Your task to perform on an android device: turn off picture-in-picture Image 0: 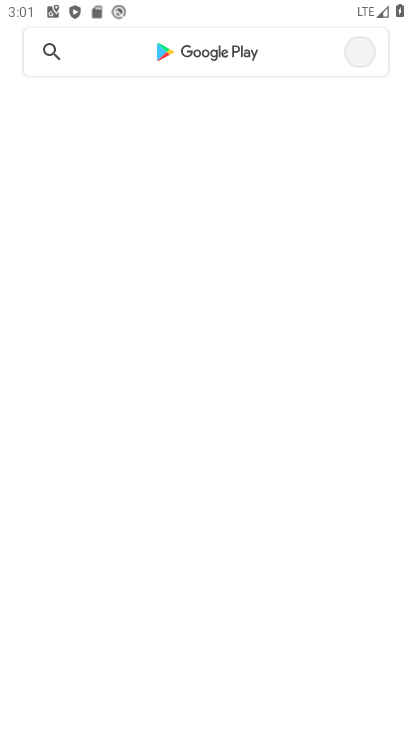
Step 0: press home button
Your task to perform on an android device: turn off picture-in-picture Image 1: 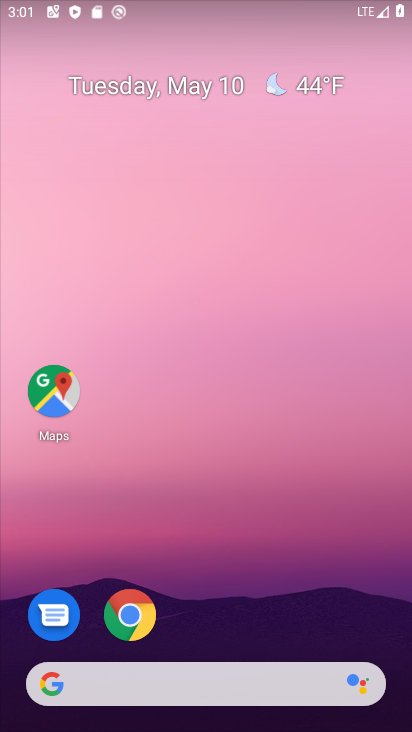
Step 1: click (137, 611)
Your task to perform on an android device: turn off picture-in-picture Image 2: 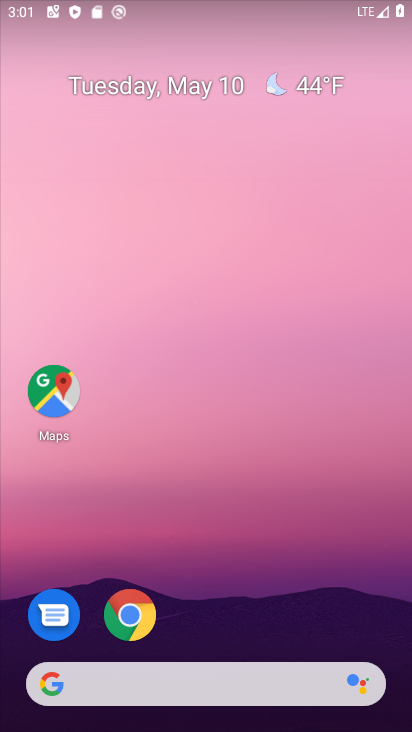
Step 2: click (140, 607)
Your task to perform on an android device: turn off picture-in-picture Image 3: 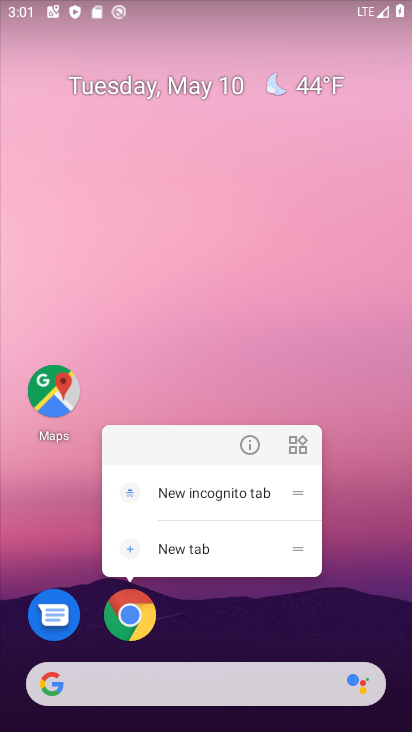
Step 3: click (259, 440)
Your task to perform on an android device: turn off picture-in-picture Image 4: 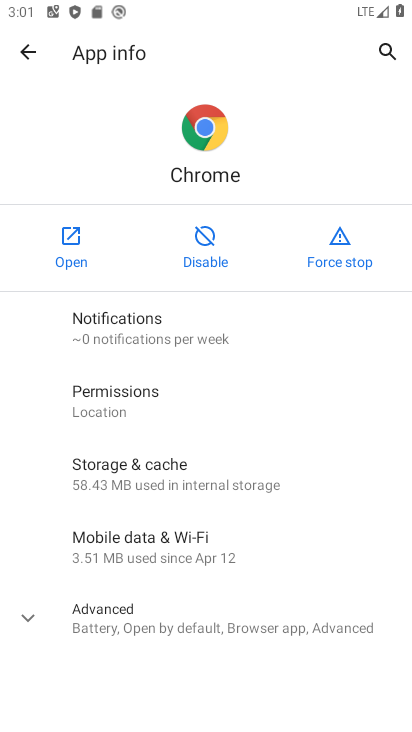
Step 4: drag from (245, 663) to (224, 497)
Your task to perform on an android device: turn off picture-in-picture Image 5: 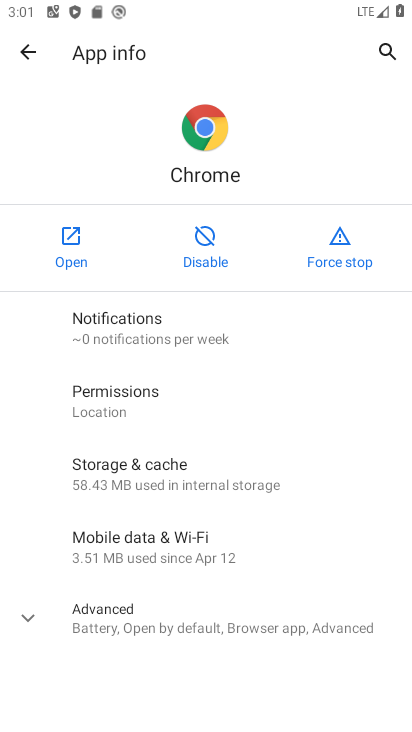
Step 5: click (203, 628)
Your task to perform on an android device: turn off picture-in-picture Image 6: 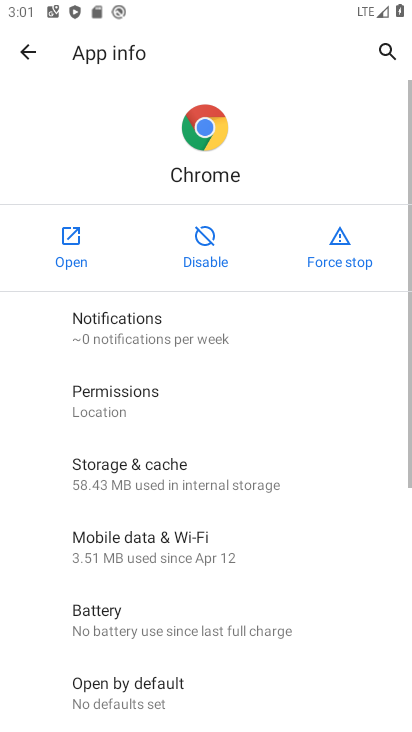
Step 6: drag from (203, 628) to (177, 120)
Your task to perform on an android device: turn off picture-in-picture Image 7: 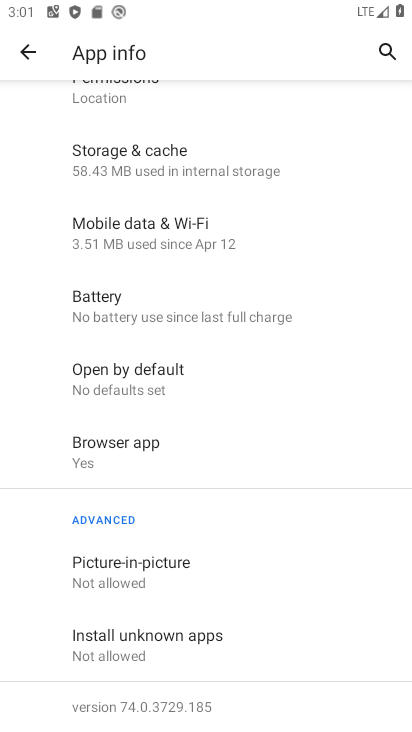
Step 7: click (165, 567)
Your task to perform on an android device: turn off picture-in-picture Image 8: 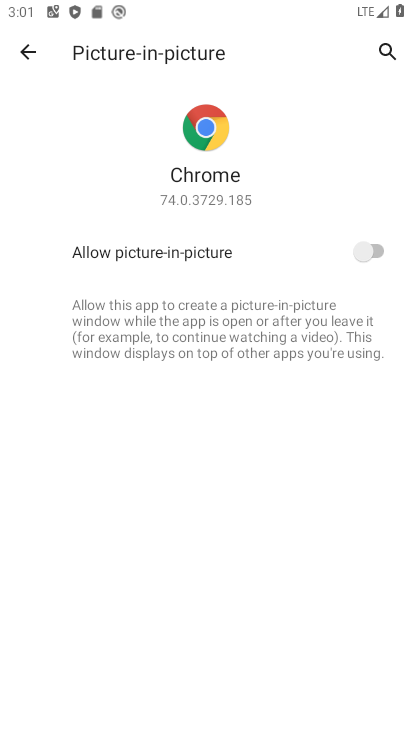
Step 8: task complete